Your task to perform on an android device: Go to internet settings Image 0: 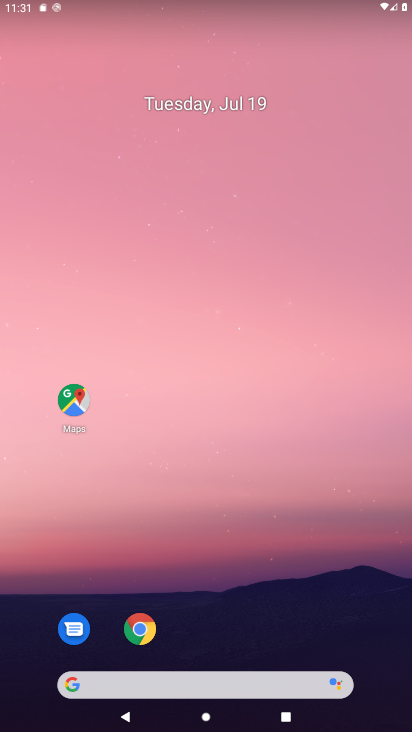
Step 0: drag from (353, 610) to (366, 123)
Your task to perform on an android device: Go to internet settings Image 1: 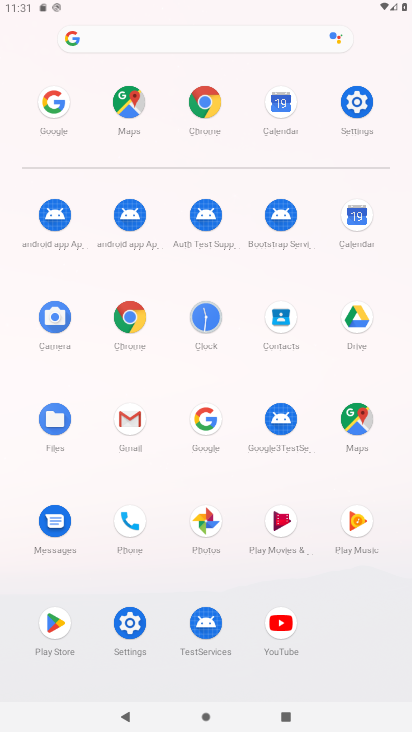
Step 1: click (355, 113)
Your task to perform on an android device: Go to internet settings Image 2: 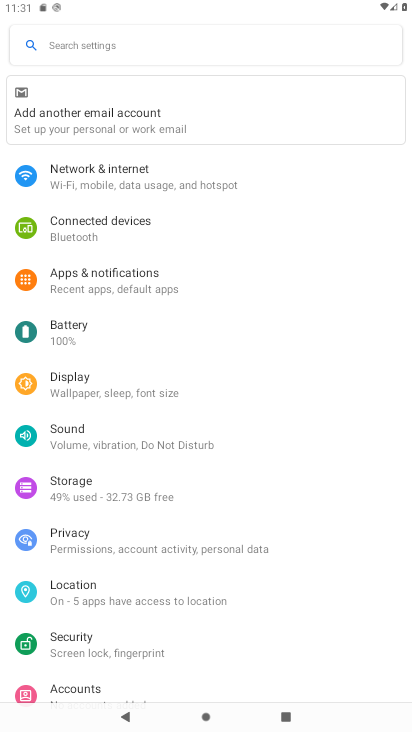
Step 2: click (215, 185)
Your task to perform on an android device: Go to internet settings Image 3: 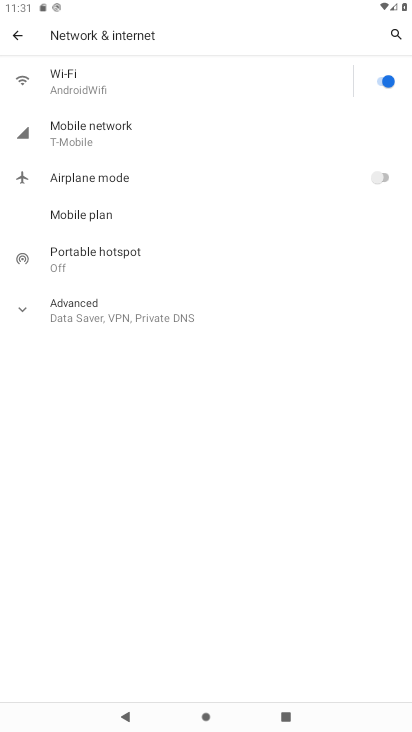
Step 3: task complete